Your task to perform on an android device: Open calendar and show me the second week of next month Image 0: 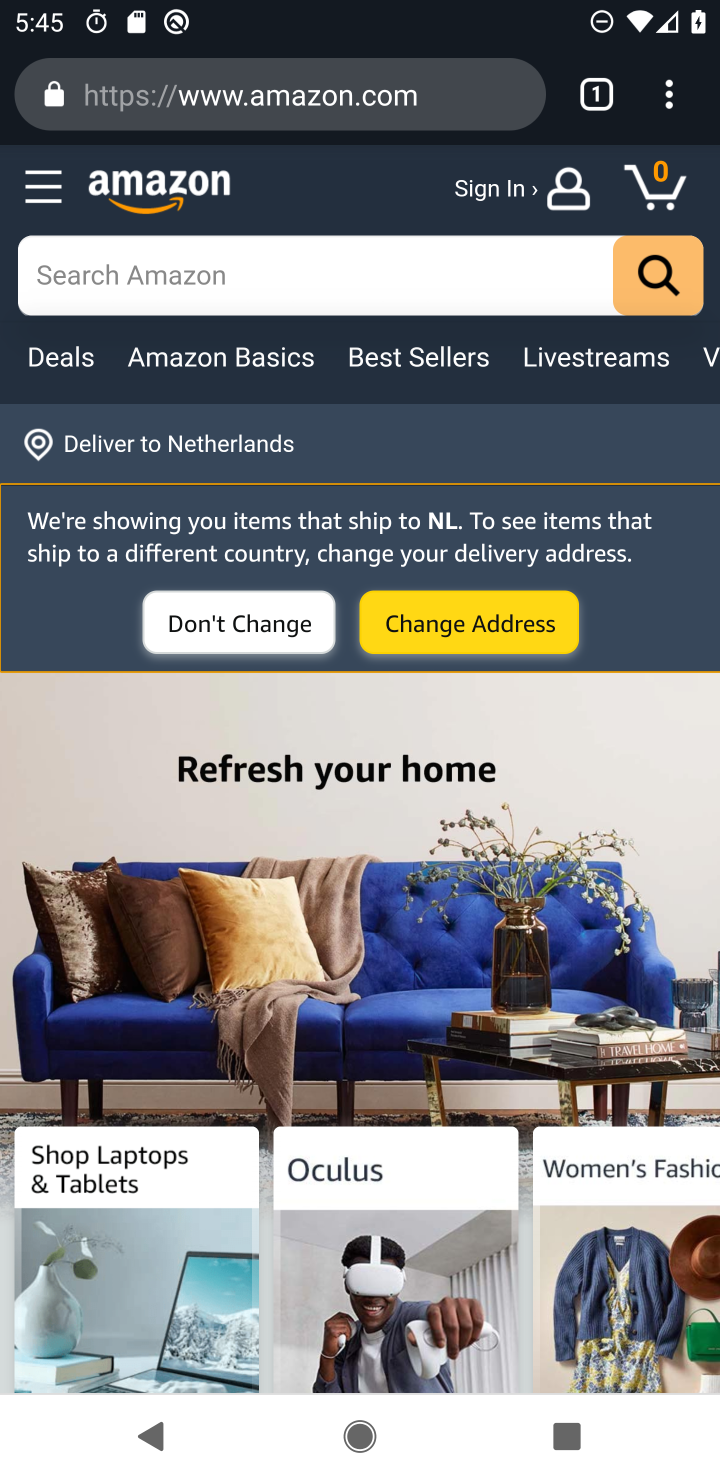
Step 0: press home button
Your task to perform on an android device: Open calendar and show me the second week of next month Image 1: 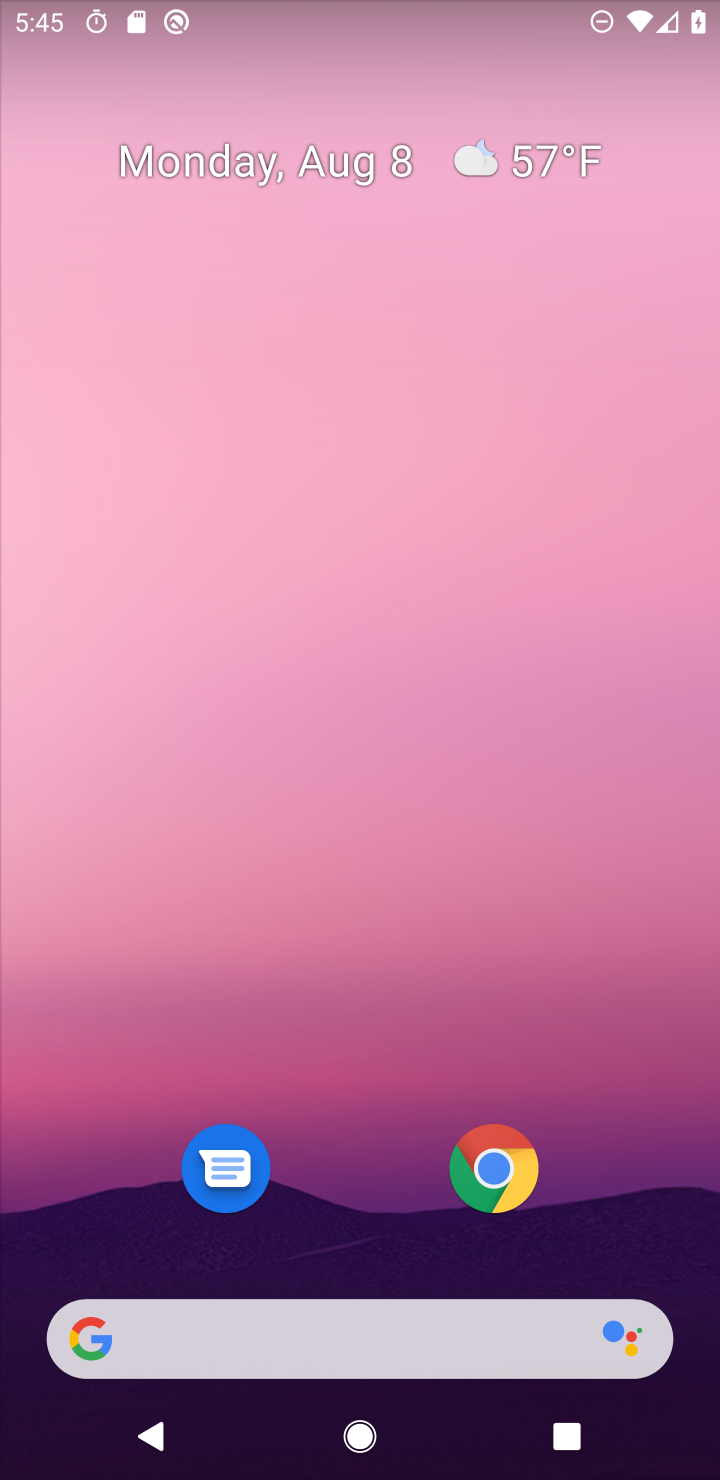
Step 1: drag from (289, 1330) to (186, 458)
Your task to perform on an android device: Open calendar and show me the second week of next month Image 2: 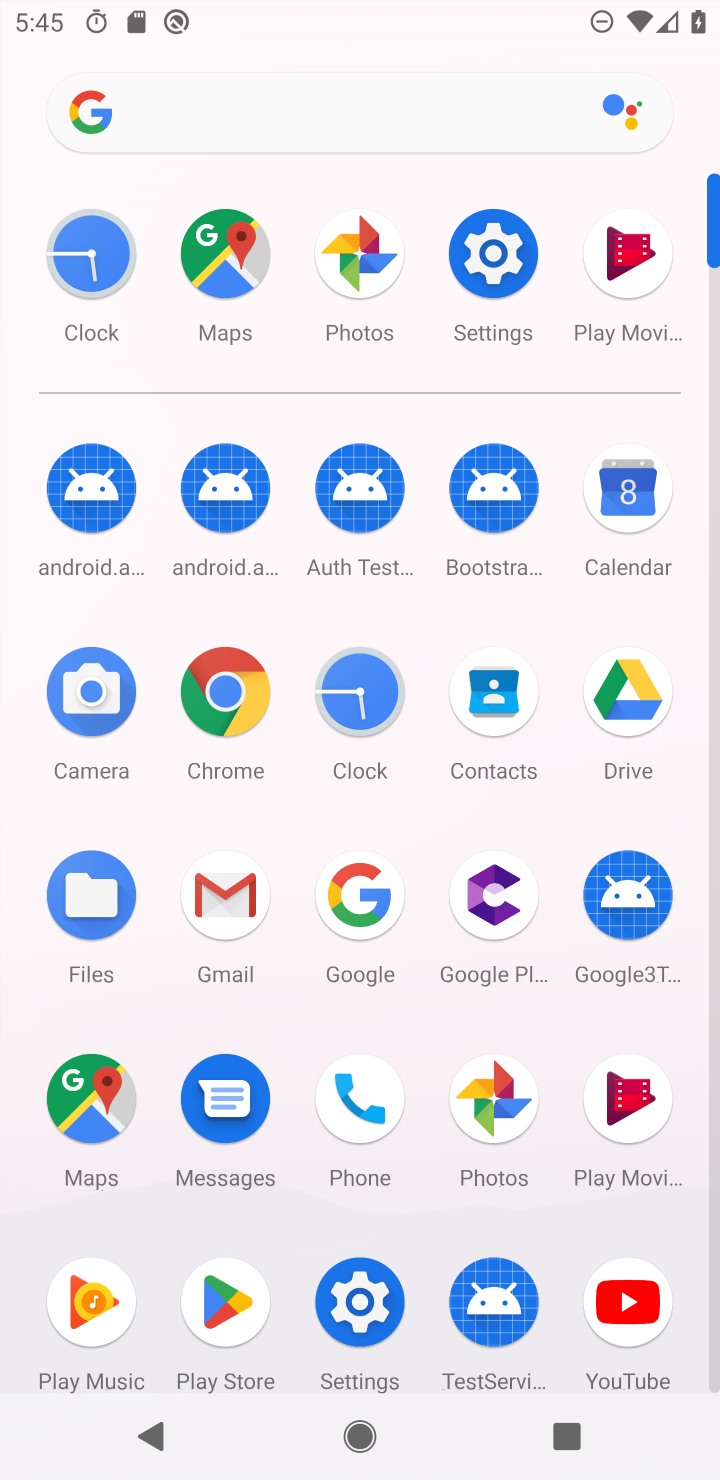
Step 2: click (612, 509)
Your task to perform on an android device: Open calendar and show me the second week of next month Image 3: 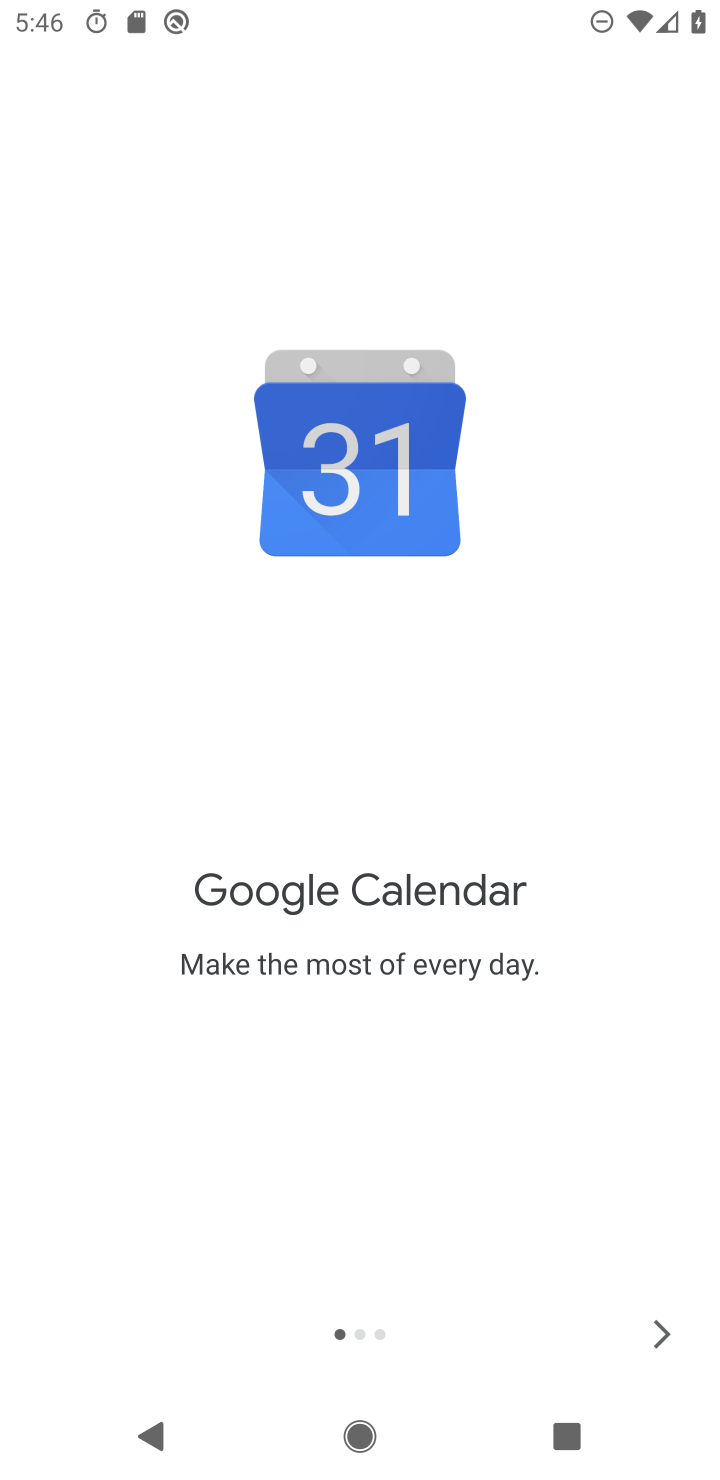
Step 3: click (654, 1344)
Your task to perform on an android device: Open calendar and show me the second week of next month Image 4: 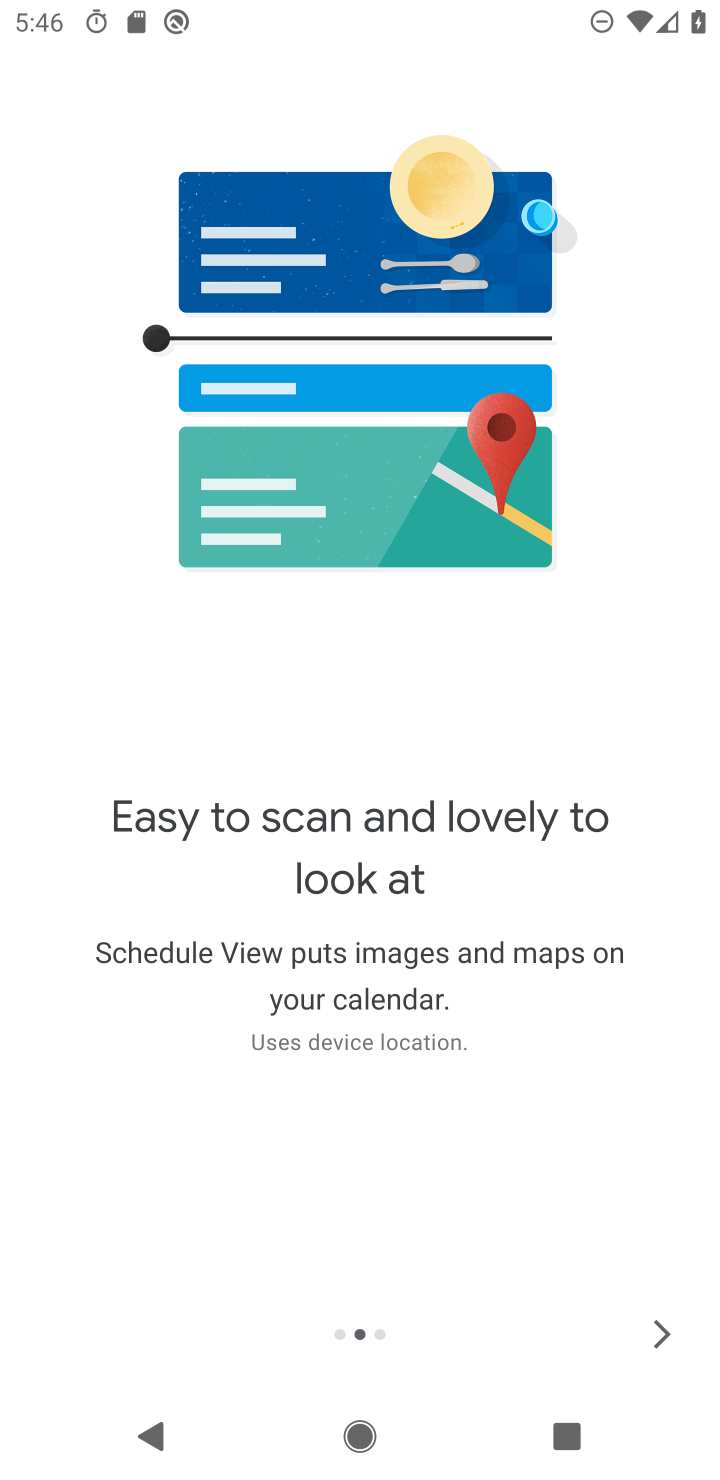
Step 4: click (654, 1344)
Your task to perform on an android device: Open calendar and show me the second week of next month Image 5: 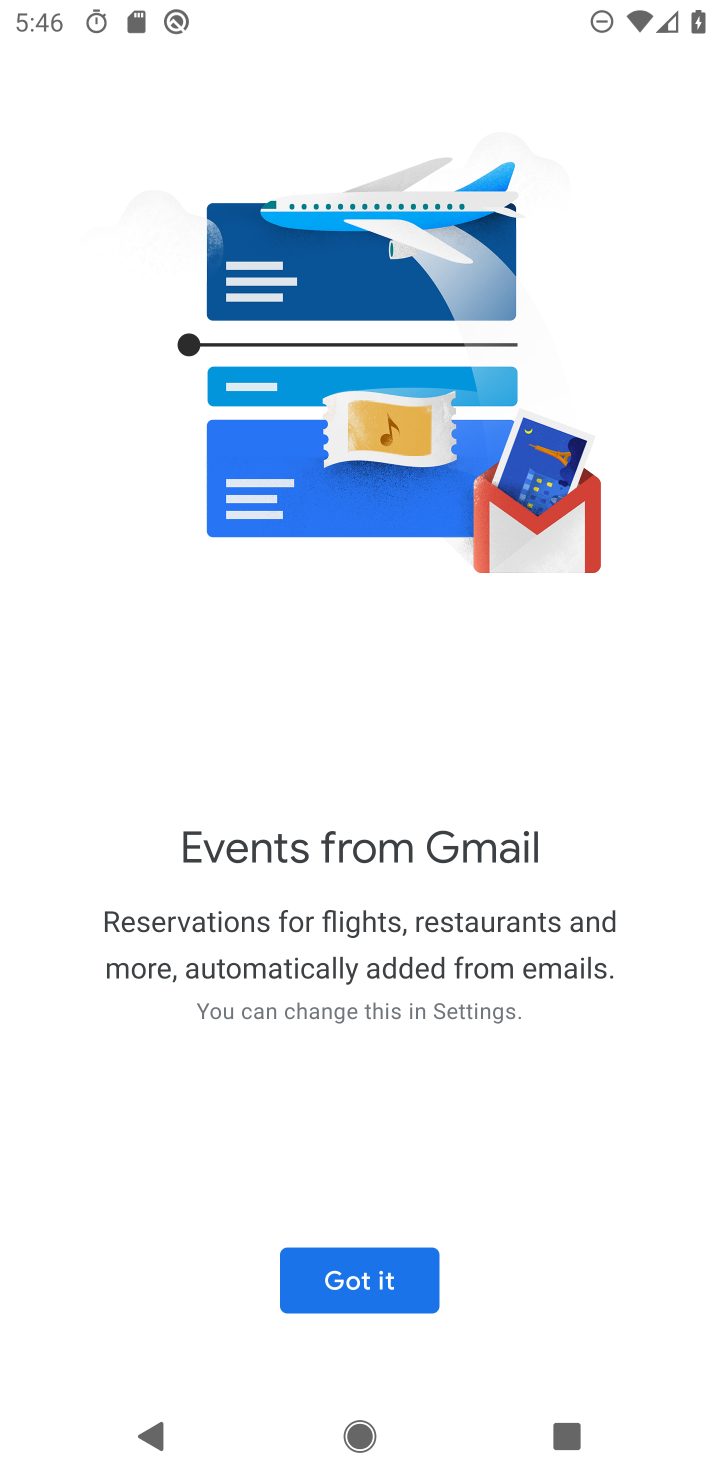
Step 5: click (347, 1282)
Your task to perform on an android device: Open calendar and show me the second week of next month Image 6: 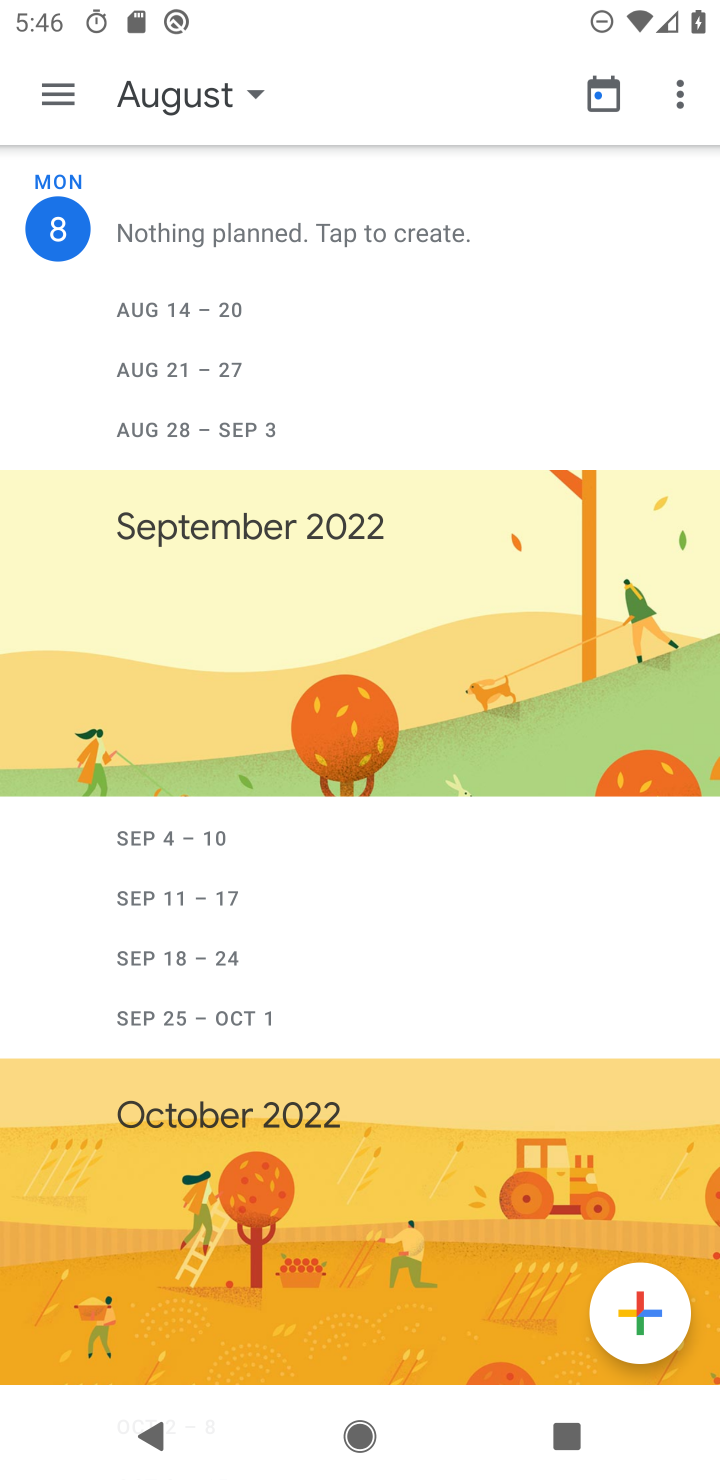
Step 6: click (66, 88)
Your task to perform on an android device: Open calendar and show me the second week of next month Image 7: 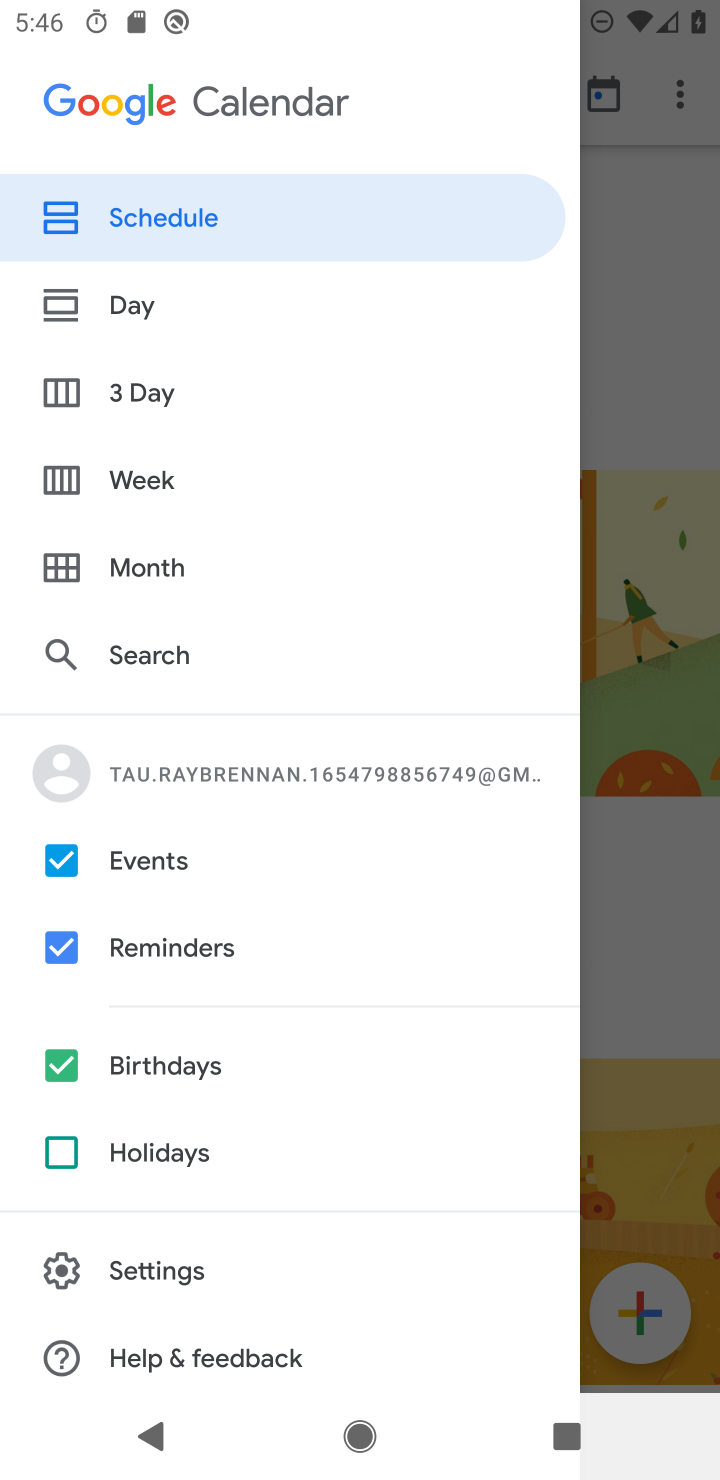
Step 7: click (159, 577)
Your task to perform on an android device: Open calendar and show me the second week of next month Image 8: 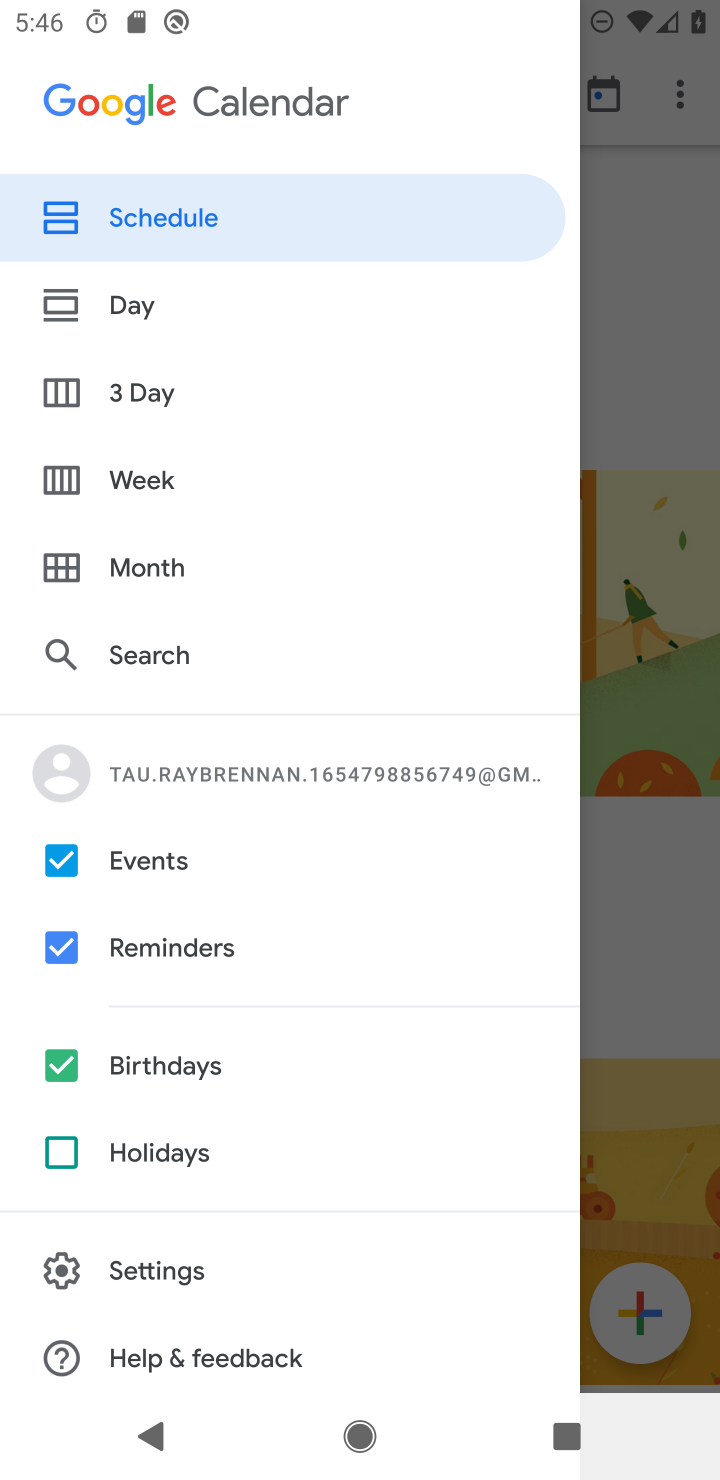
Step 8: click (159, 577)
Your task to perform on an android device: Open calendar and show me the second week of next month Image 9: 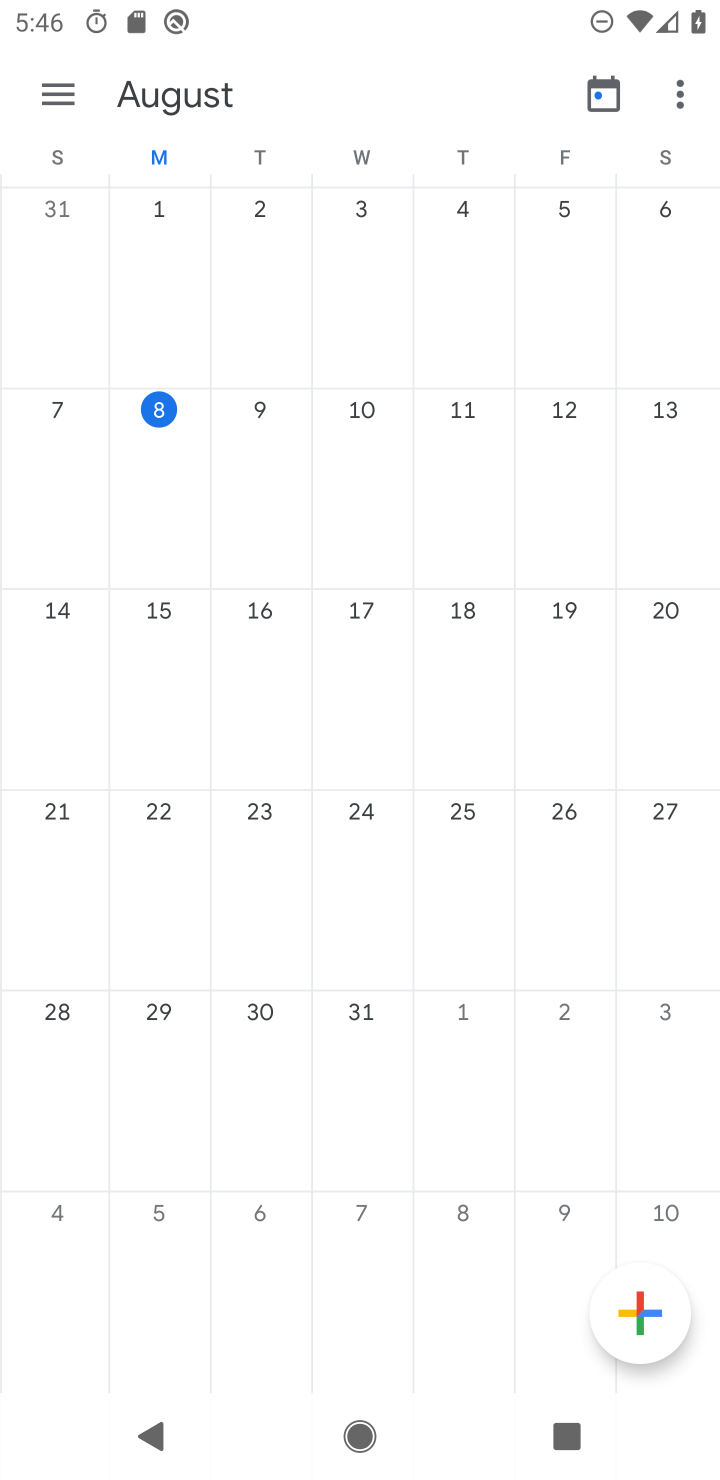
Step 9: task complete